Your task to perform on an android device: Go to settings Image 0: 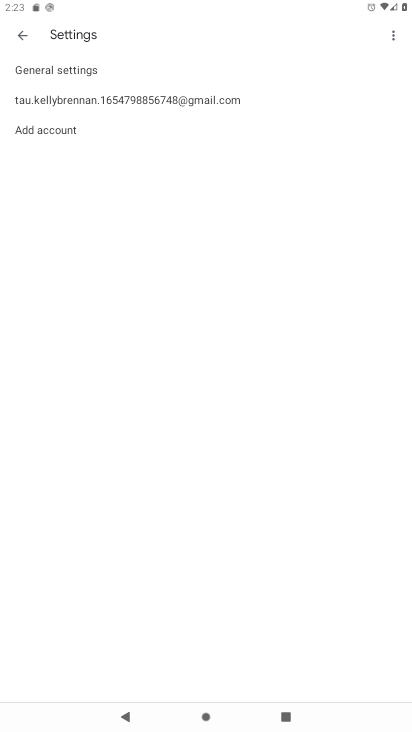
Step 0: press home button
Your task to perform on an android device: Go to settings Image 1: 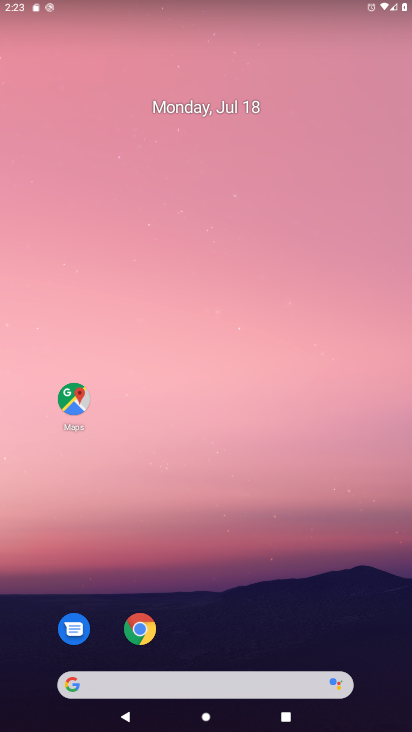
Step 1: drag from (183, 536) to (186, 173)
Your task to perform on an android device: Go to settings Image 2: 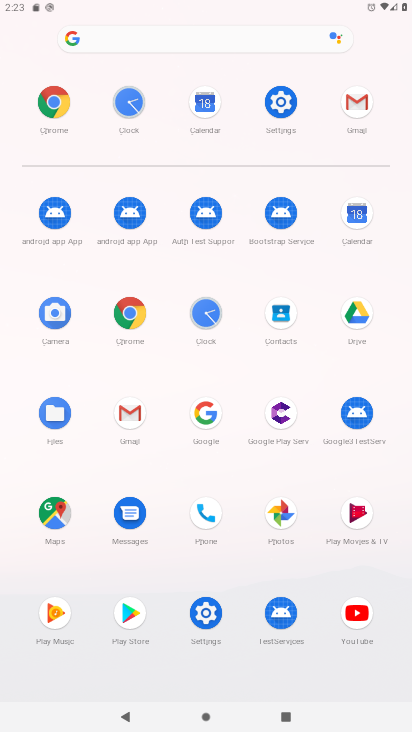
Step 2: click (278, 96)
Your task to perform on an android device: Go to settings Image 3: 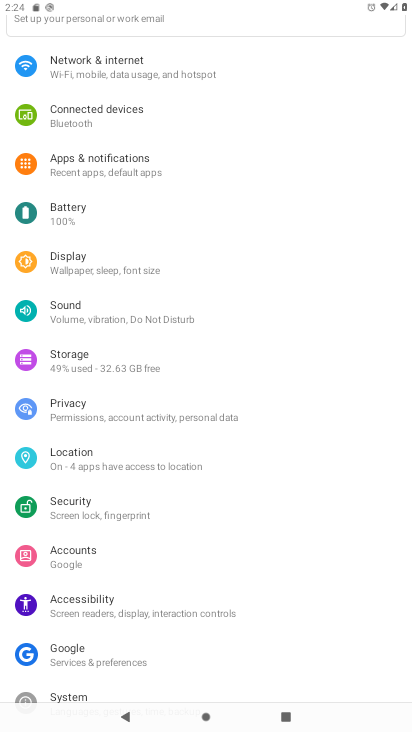
Step 3: task complete